Your task to perform on an android device: toggle location history Image 0: 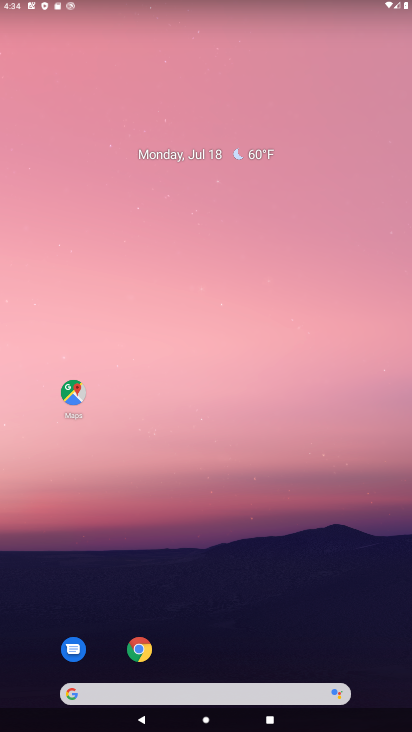
Step 0: drag from (197, 630) to (191, 65)
Your task to perform on an android device: toggle location history Image 1: 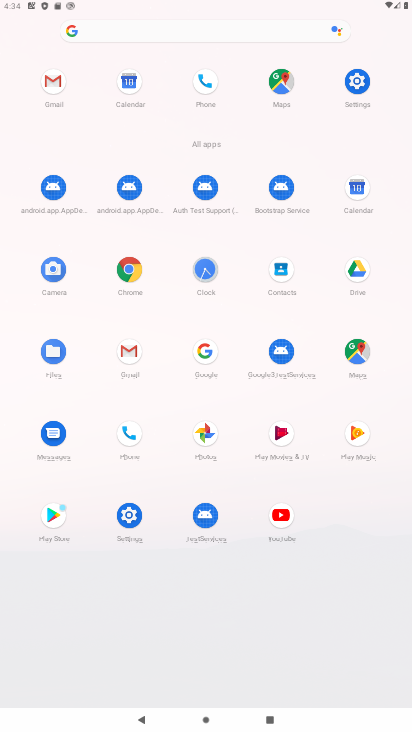
Step 1: click (129, 523)
Your task to perform on an android device: toggle location history Image 2: 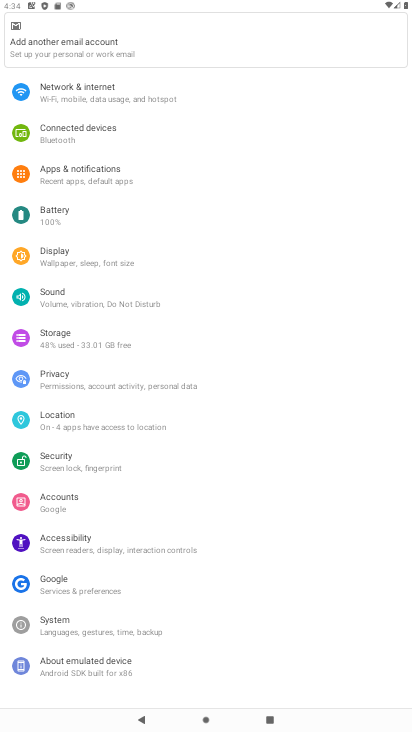
Step 2: click (127, 525)
Your task to perform on an android device: toggle location history Image 3: 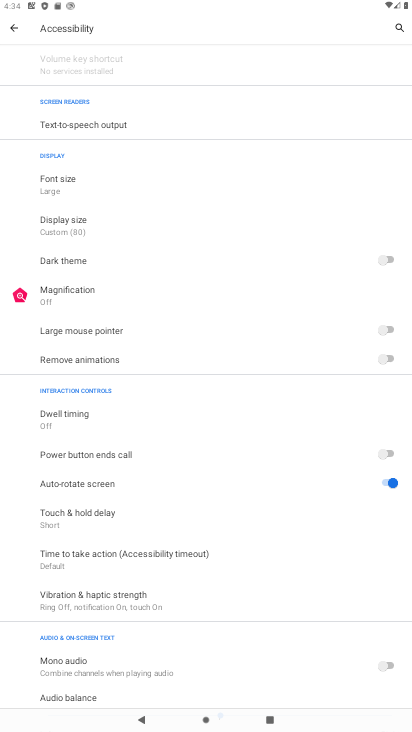
Step 3: click (12, 26)
Your task to perform on an android device: toggle location history Image 4: 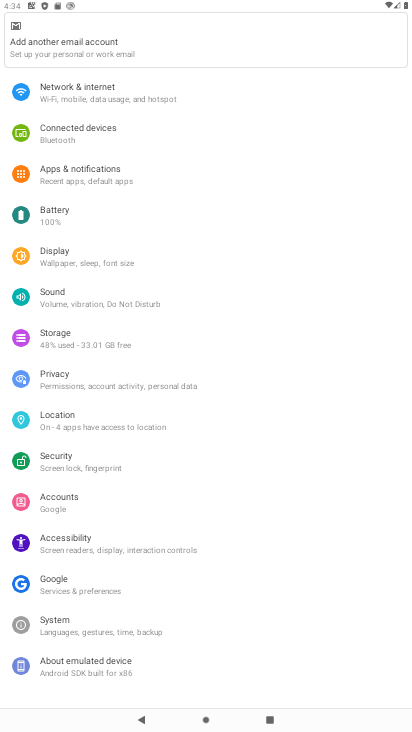
Step 4: click (68, 417)
Your task to perform on an android device: toggle location history Image 5: 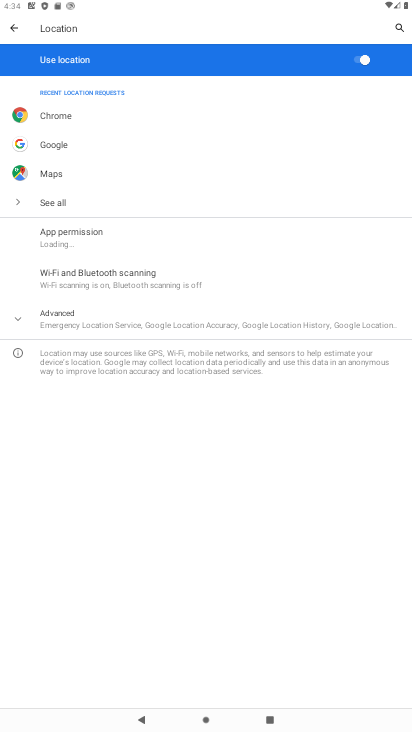
Step 5: click (82, 321)
Your task to perform on an android device: toggle location history Image 6: 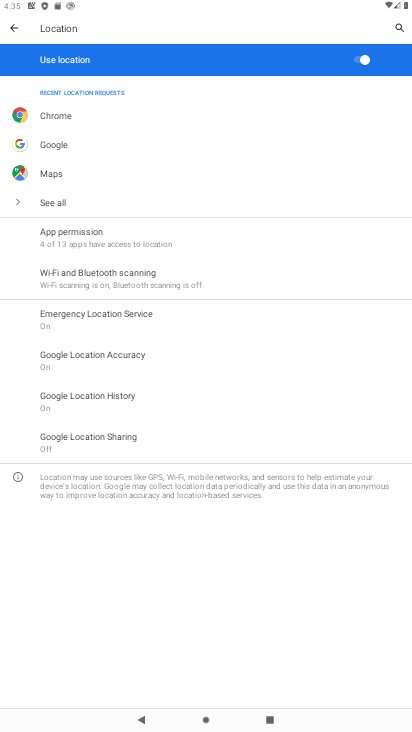
Step 6: click (117, 403)
Your task to perform on an android device: toggle location history Image 7: 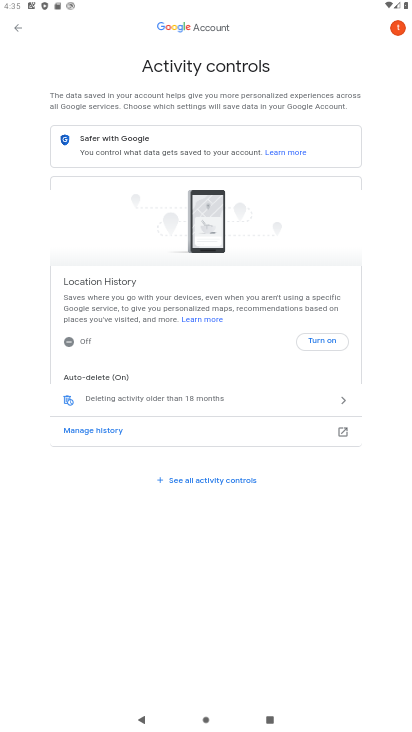
Step 7: click (326, 341)
Your task to perform on an android device: toggle location history Image 8: 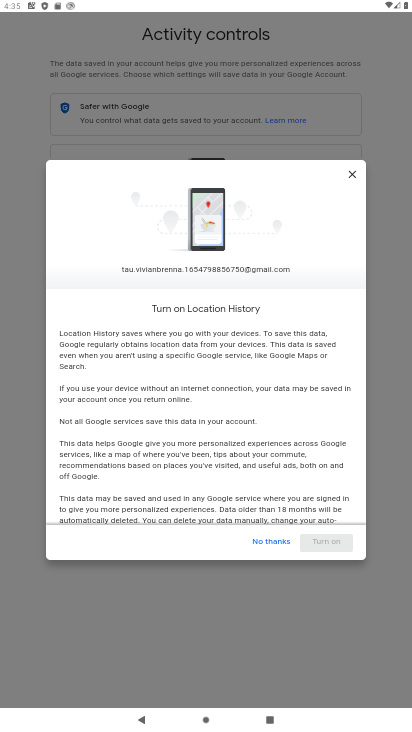
Step 8: drag from (248, 493) to (265, 65)
Your task to perform on an android device: toggle location history Image 9: 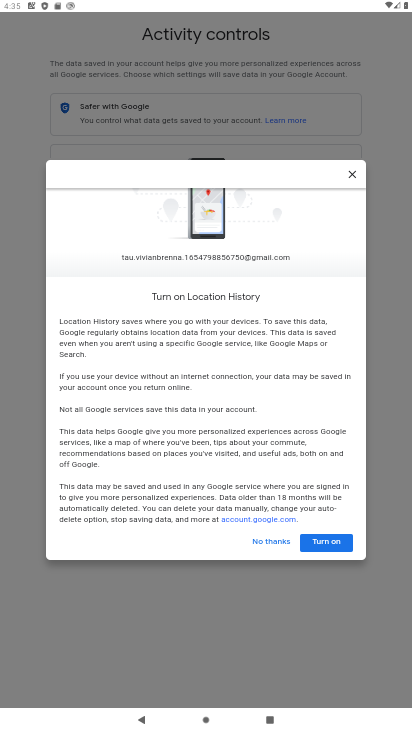
Step 9: click (323, 539)
Your task to perform on an android device: toggle location history Image 10: 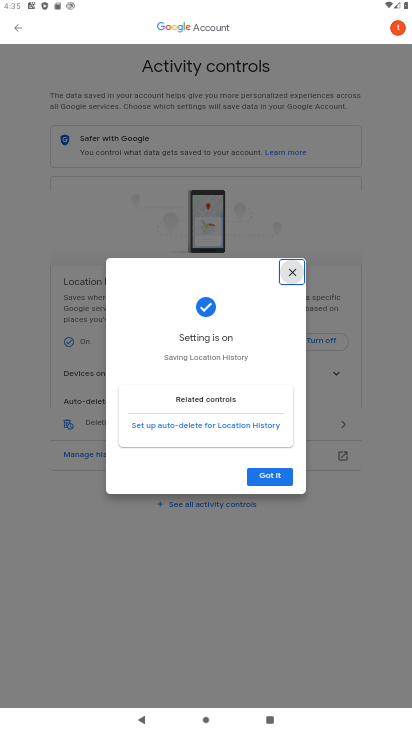
Step 10: click (279, 474)
Your task to perform on an android device: toggle location history Image 11: 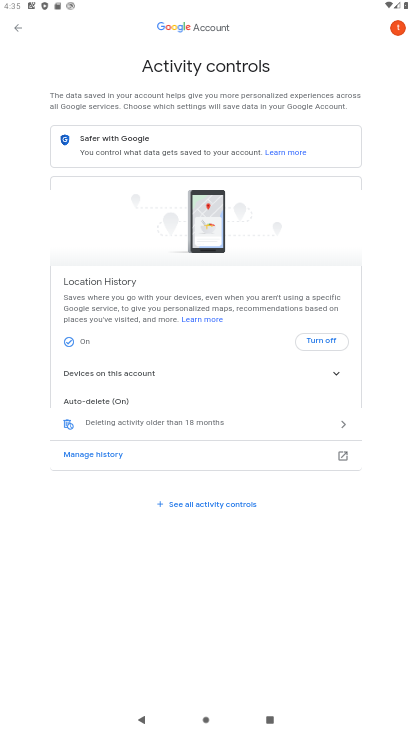
Step 11: task complete